Your task to perform on an android device: Go to internet settings Image 0: 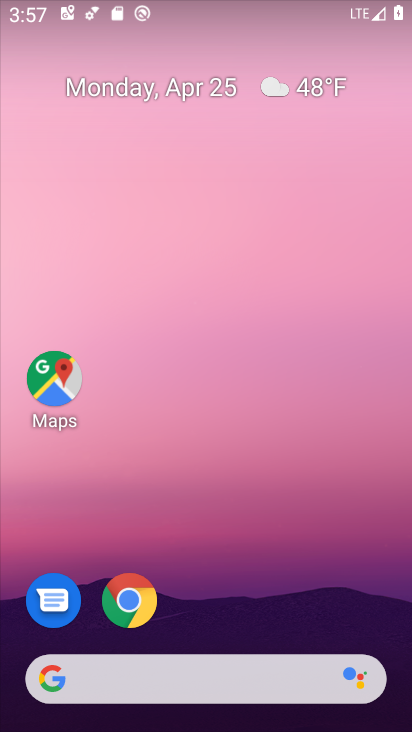
Step 0: drag from (266, 434) to (232, 1)
Your task to perform on an android device: Go to internet settings Image 1: 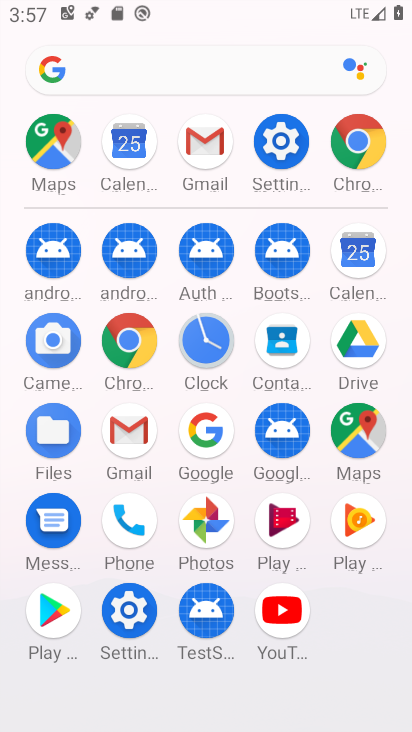
Step 1: drag from (5, 549) to (21, 213)
Your task to perform on an android device: Go to internet settings Image 2: 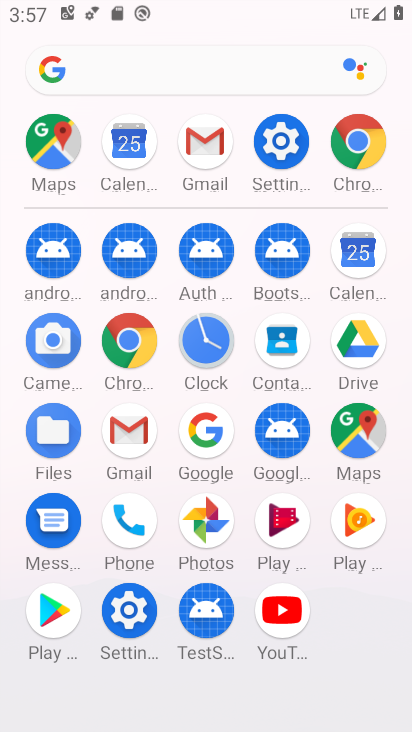
Step 2: click (129, 606)
Your task to perform on an android device: Go to internet settings Image 3: 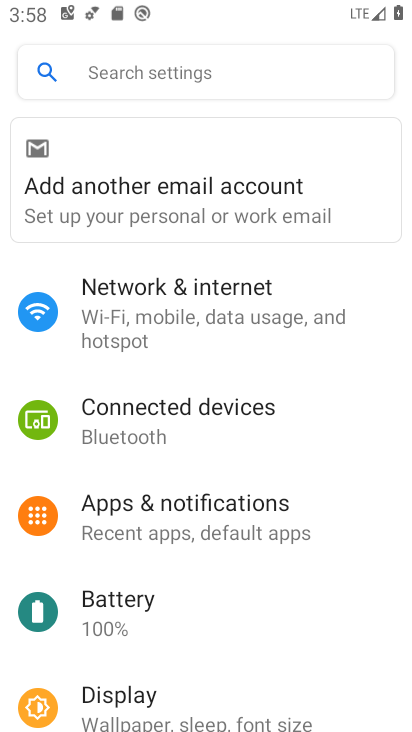
Step 3: click (252, 289)
Your task to perform on an android device: Go to internet settings Image 4: 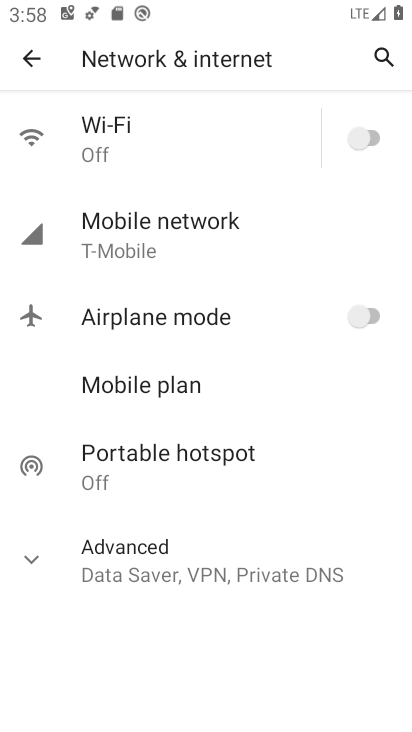
Step 4: click (188, 236)
Your task to perform on an android device: Go to internet settings Image 5: 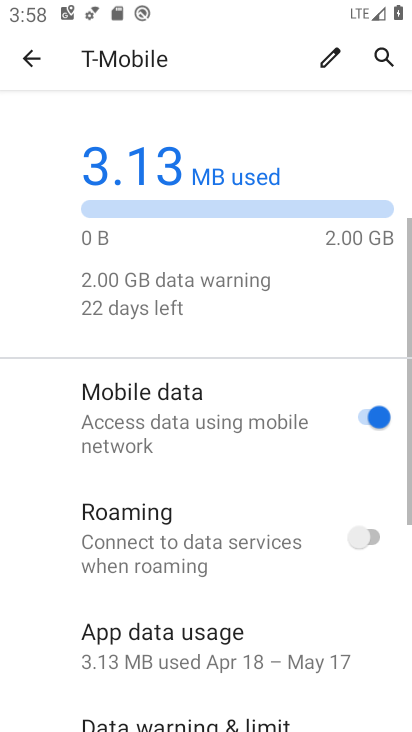
Step 5: click (50, 63)
Your task to perform on an android device: Go to internet settings Image 6: 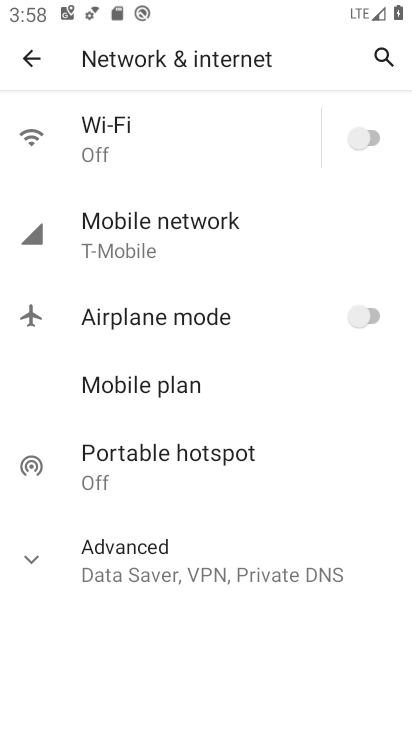
Step 6: click (23, 553)
Your task to perform on an android device: Go to internet settings Image 7: 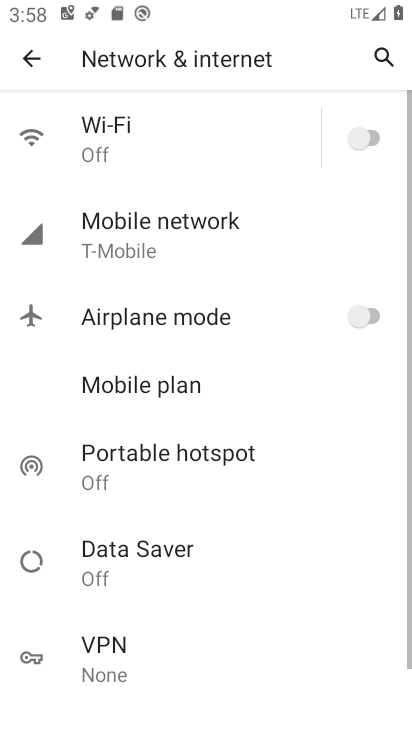
Step 7: task complete